Your task to perform on an android device: turn pop-ups off in chrome Image 0: 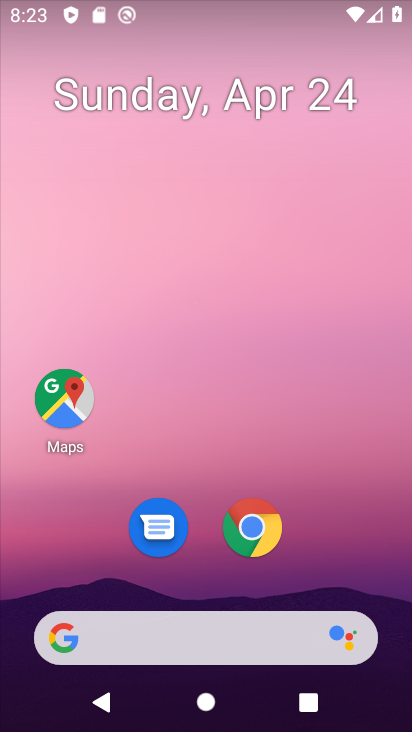
Step 0: click (251, 530)
Your task to perform on an android device: turn pop-ups off in chrome Image 1: 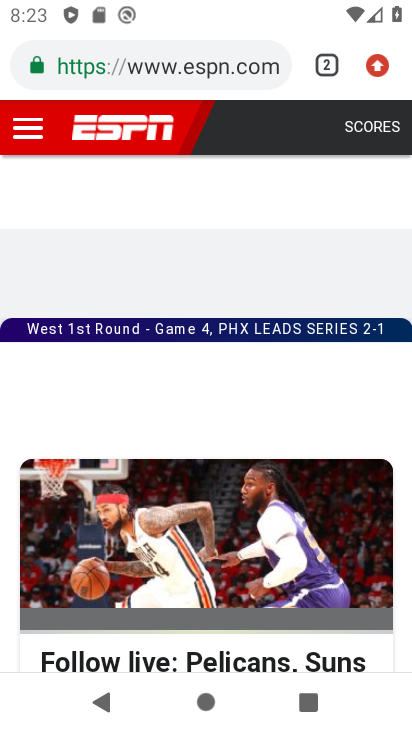
Step 1: click (380, 67)
Your task to perform on an android device: turn pop-ups off in chrome Image 2: 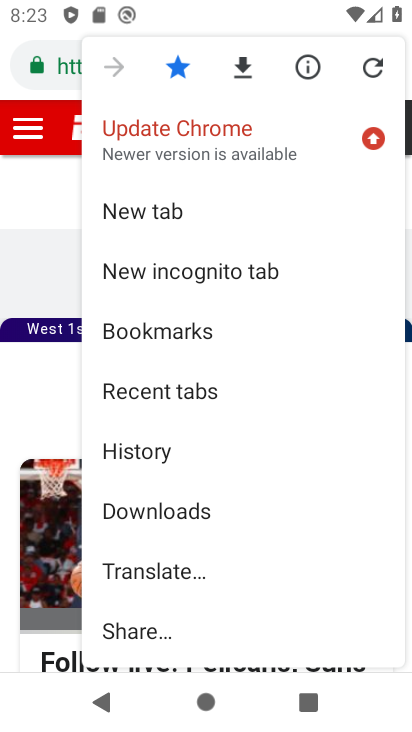
Step 2: drag from (245, 601) to (236, 340)
Your task to perform on an android device: turn pop-ups off in chrome Image 3: 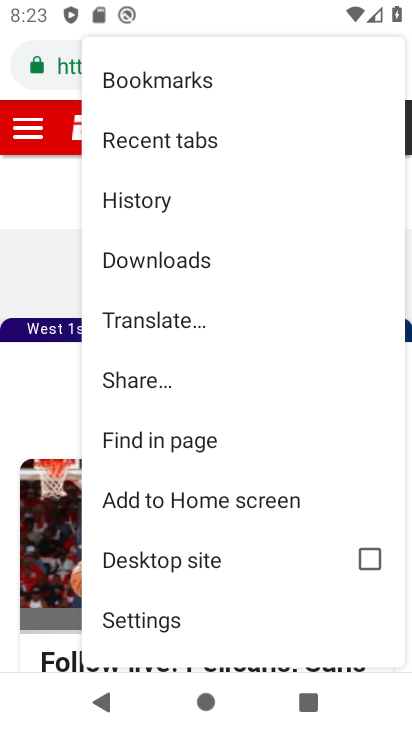
Step 3: click (168, 618)
Your task to perform on an android device: turn pop-ups off in chrome Image 4: 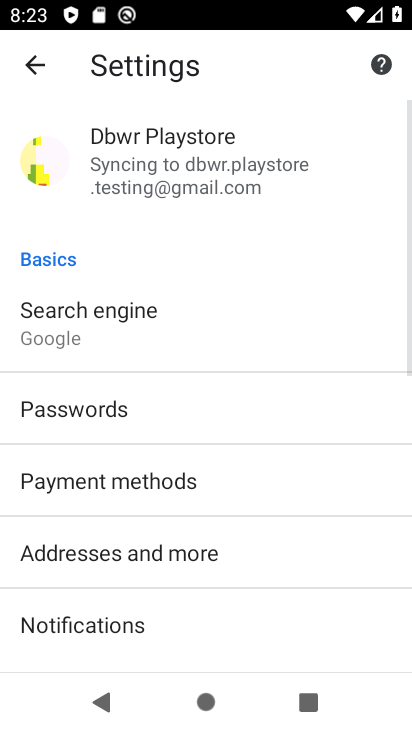
Step 4: drag from (177, 603) to (160, 177)
Your task to perform on an android device: turn pop-ups off in chrome Image 5: 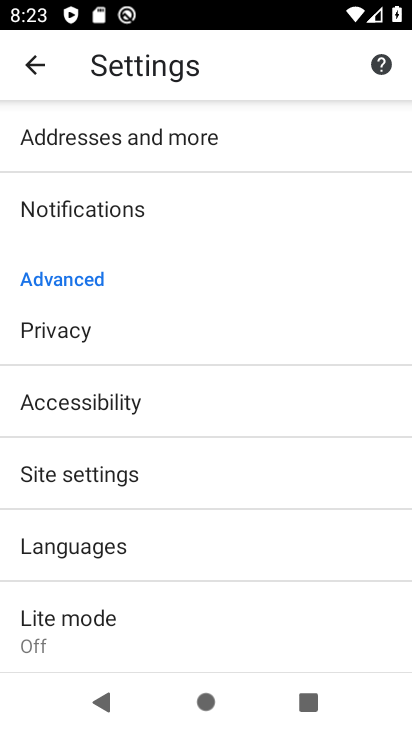
Step 5: click (114, 478)
Your task to perform on an android device: turn pop-ups off in chrome Image 6: 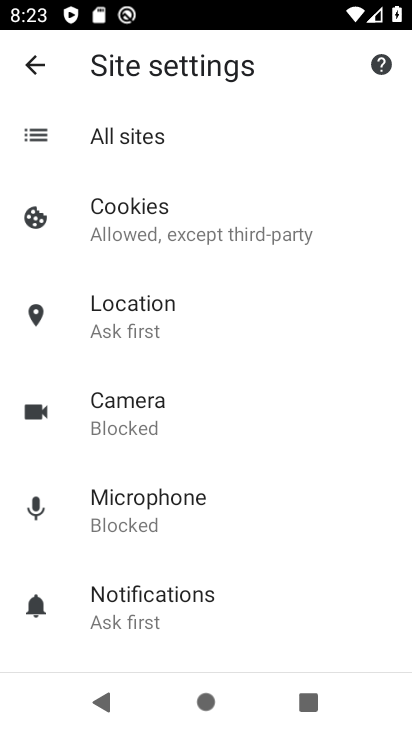
Step 6: drag from (226, 587) to (234, 282)
Your task to perform on an android device: turn pop-ups off in chrome Image 7: 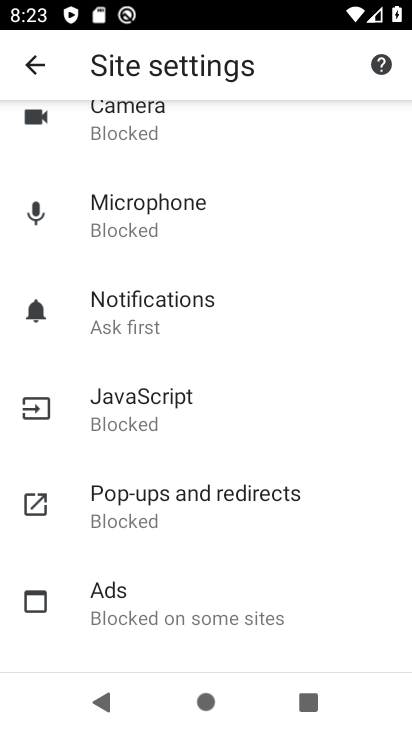
Step 7: click (221, 512)
Your task to perform on an android device: turn pop-ups off in chrome Image 8: 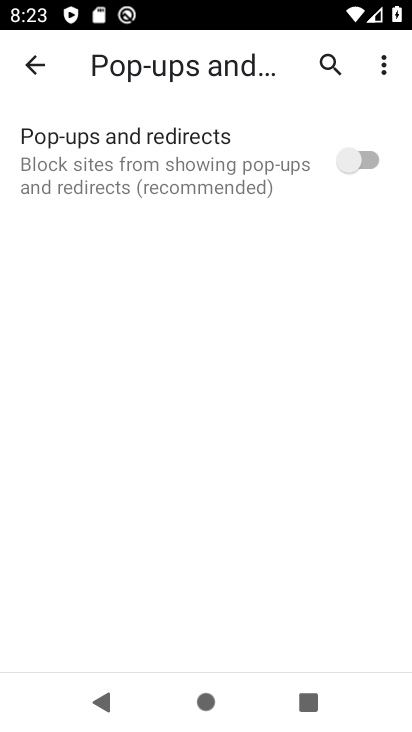
Step 8: task complete